Your task to perform on an android device: Go to settings Image 0: 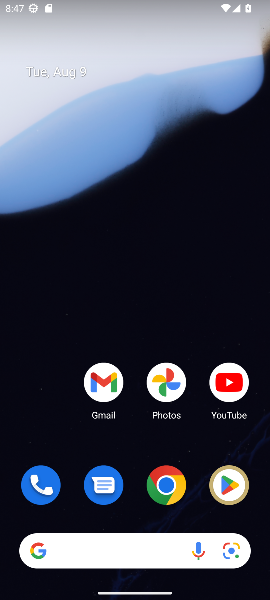
Step 0: click (175, 398)
Your task to perform on an android device: Go to settings Image 1: 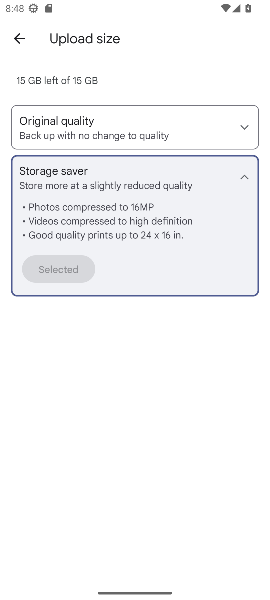
Step 1: click (64, 113)
Your task to perform on an android device: Go to settings Image 2: 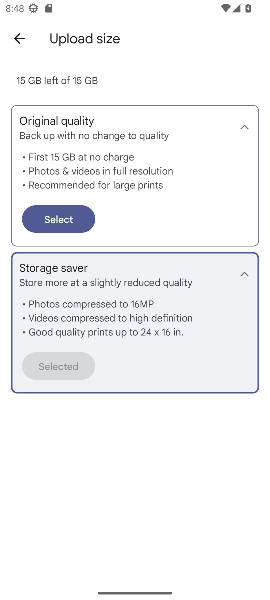
Step 2: click (36, 214)
Your task to perform on an android device: Go to settings Image 3: 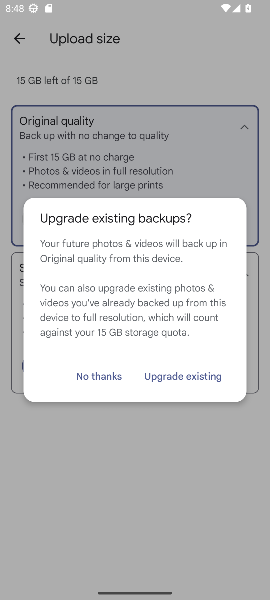
Step 3: click (177, 379)
Your task to perform on an android device: Go to settings Image 4: 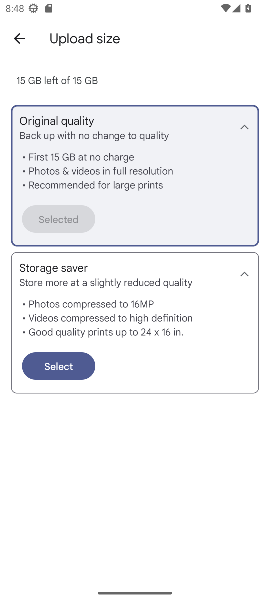
Step 4: task complete